Your task to perform on an android device: visit the assistant section in the google photos Image 0: 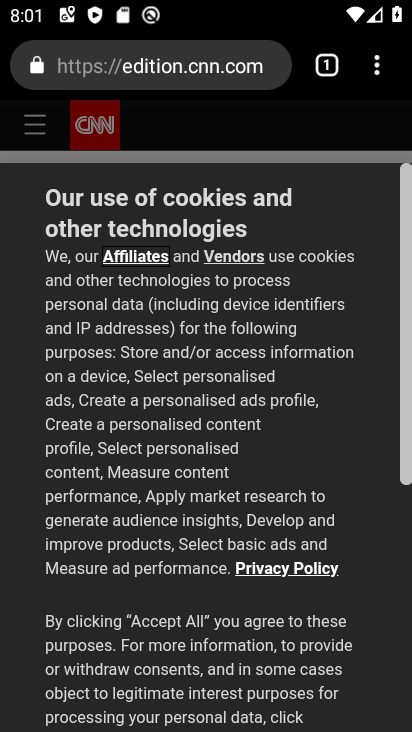
Step 0: press home button
Your task to perform on an android device: visit the assistant section in the google photos Image 1: 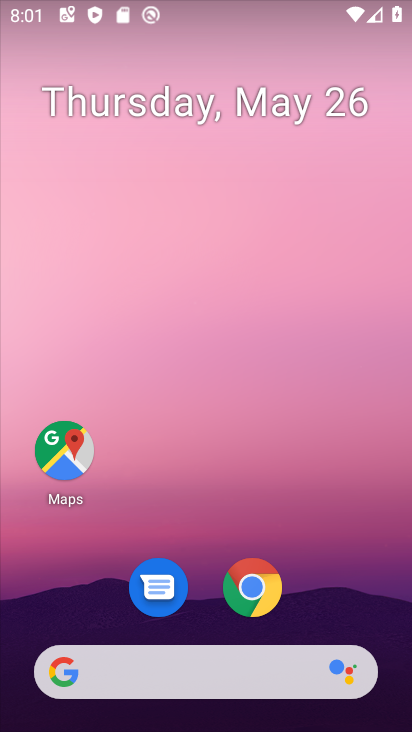
Step 1: drag from (220, 622) to (252, 163)
Your task to perform on an android device: visit the assistant section in the google photos Image 2: 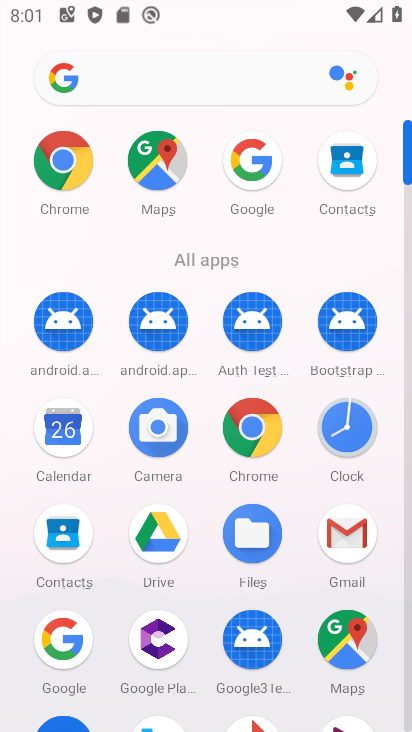
Step 2: drag from (151, 522) to (189, 322)
Your task to perform on an android device: visit the assistant section in the google photos Image 3: 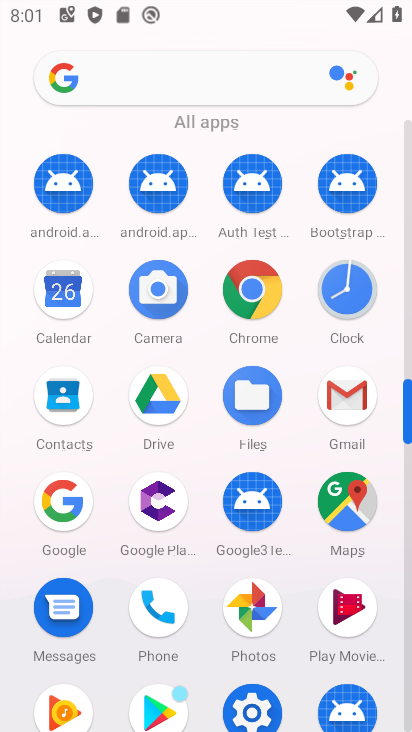
Step 3: click (253, 608)
Your task to perform on an android device: visit the assistant section in the google photos Image 4: 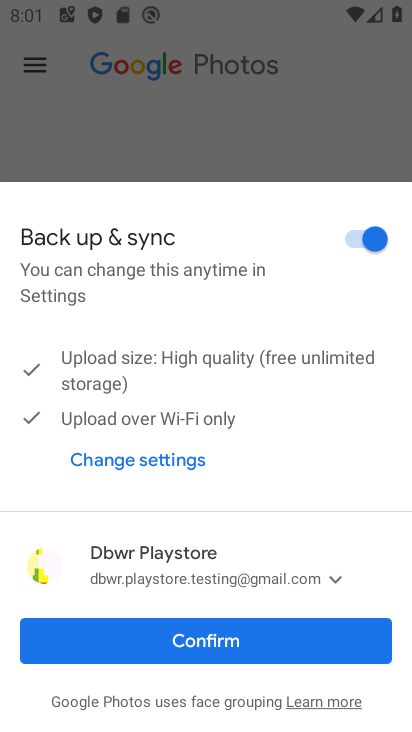
Step 4: click (237, 623)
Your task to perform on an android device: visit the assistant section in the google photos Image 5: 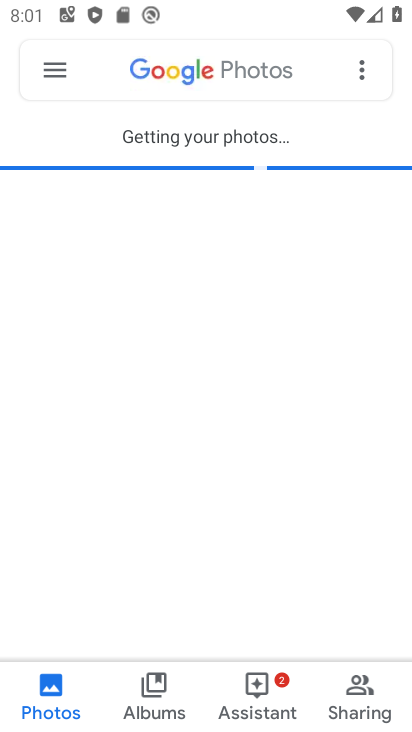
Step 5: click (257, 704)
Your task to perform on an android device: visit the assistant section in the google photos Image 6: 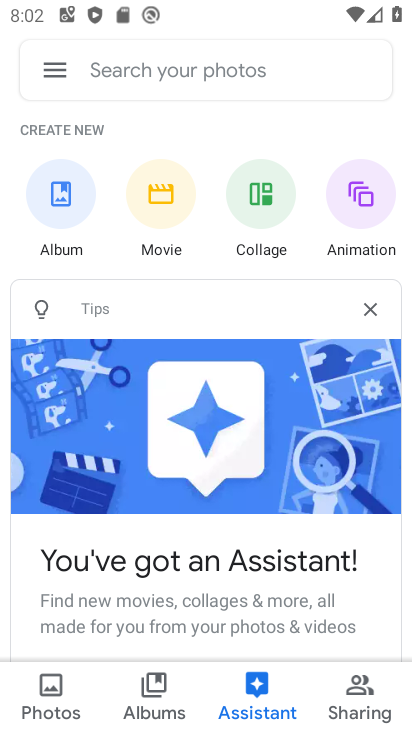
Step 6: task complete